Your task to perform on an android device: What's on my calendar tomorrow? Image 0: 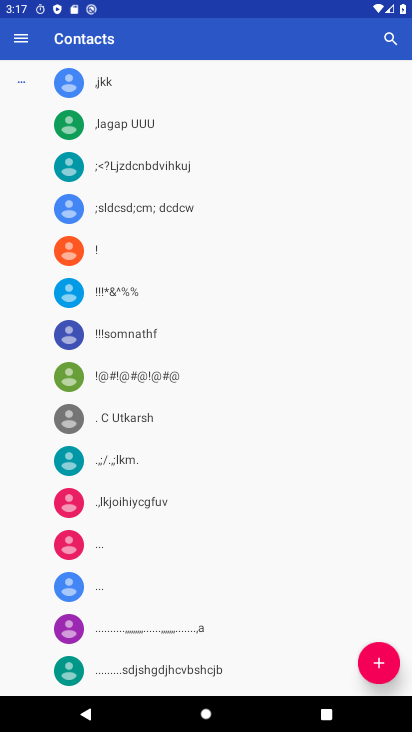
Step 0: press home button
Your task to perform on an android device: What's on my calendar tomorrow? Image 1: 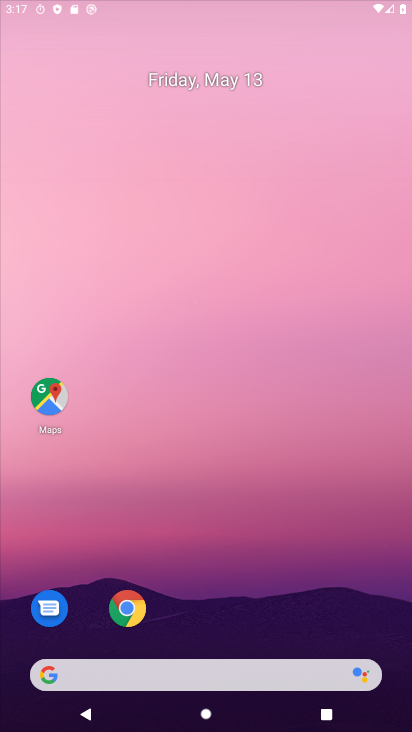
Step 1: drag from (282, 582) to (300, 70)
Your task to perform on an android device: What's on my calendar tomorrow? Image 2: 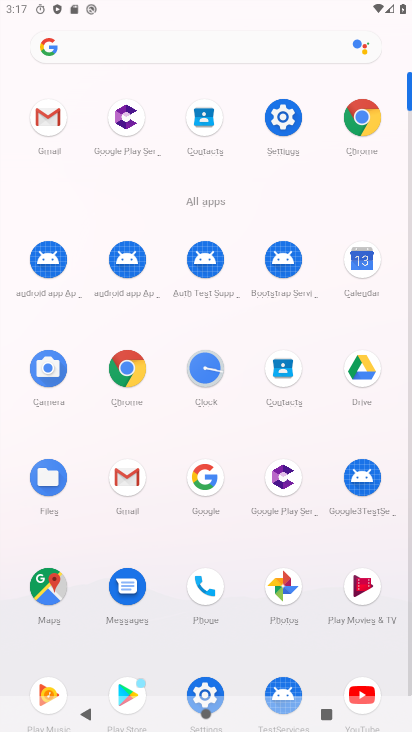
Step 2: click (355, 259)
Your task to perform on an android device: What's on my calendar tomorrow? Image 3: 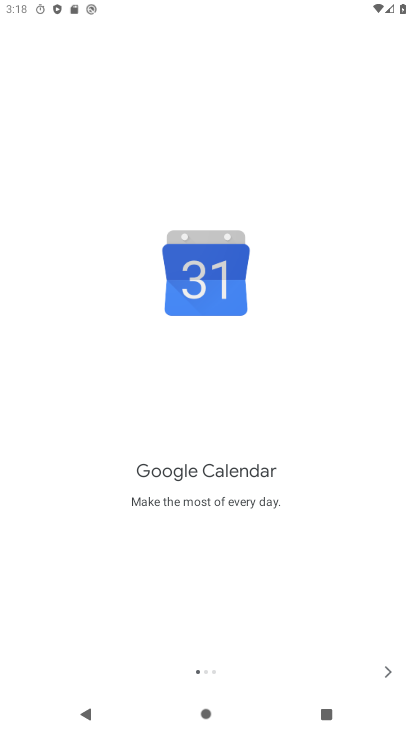
Step 3: click (372, 656)
Your task to perform on an android device: What's on my calendar tomorrow? Image 4: 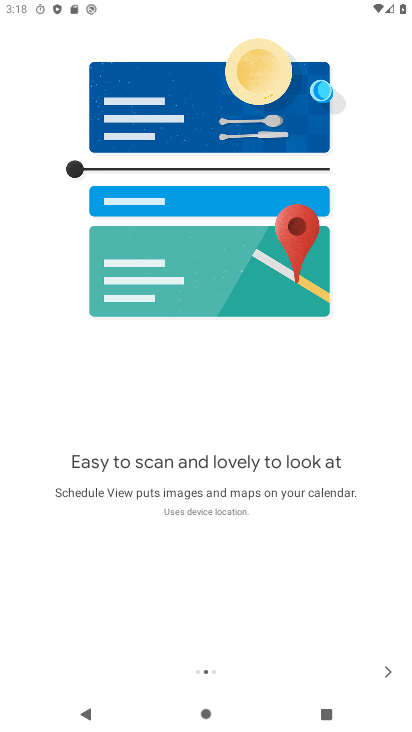
Step 4: click (372, 656)
Your task to perform on an android device: What's on my calendar tomorrow? Image 5: 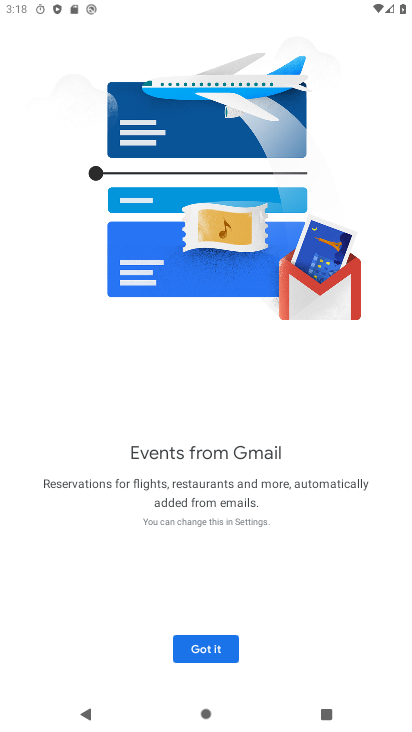
Step 5: click (372, 656)
Your task to perform on an android device: What's on my calendar tomorrow? Image 6: 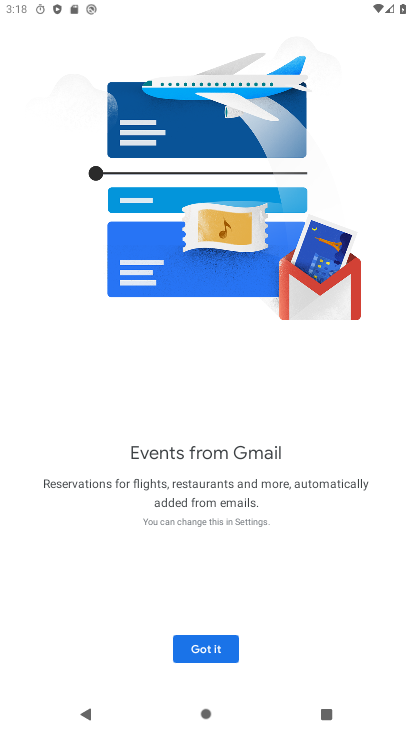
Step 6: click (230, 642)
Your task to perform on an android device: What's on my calendar tomorrow? Image 7: 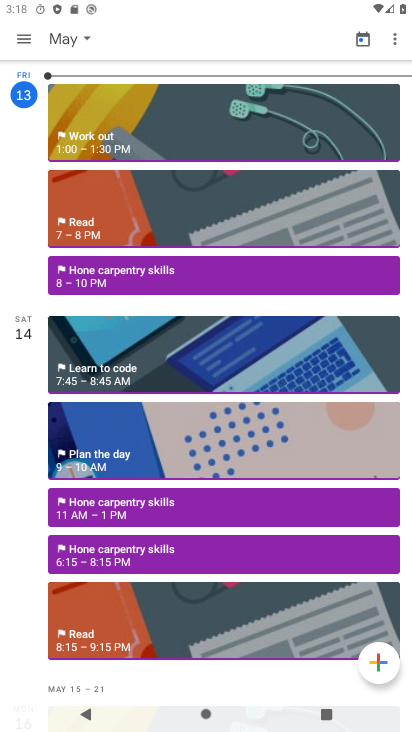
Step 7: click (84, 28)
Your task to perform on an android device: What's on my calendar tomorrow? Image 8: 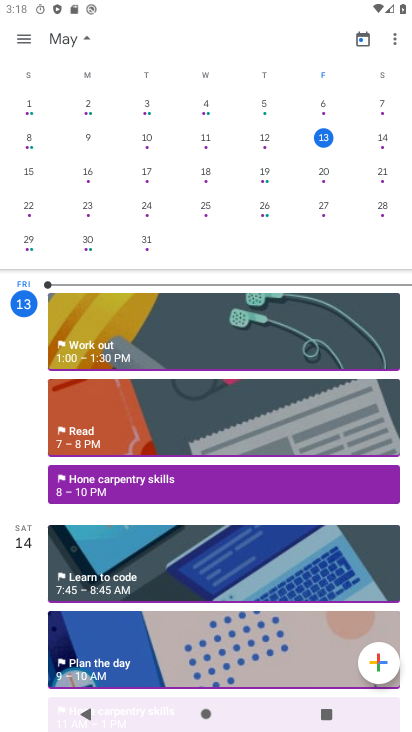
Step 8: click (380, 140)
Your task to perform on an android device: What's on my calendar tomorrow? Image 9: 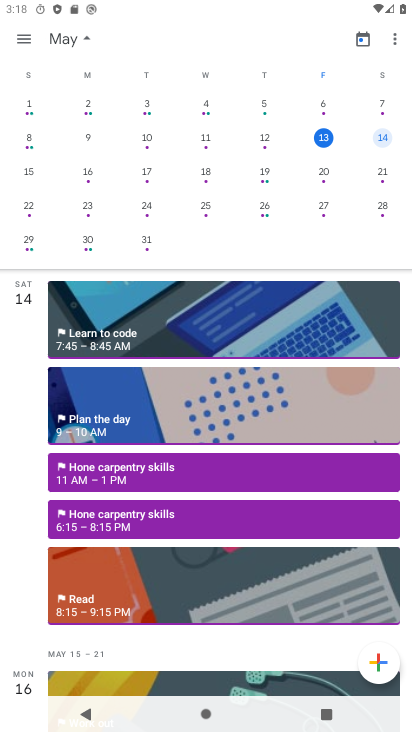
Step 9: click (65, 46)
Your task to perform on an android device: What's on my calendar tomorrow? Image 10: 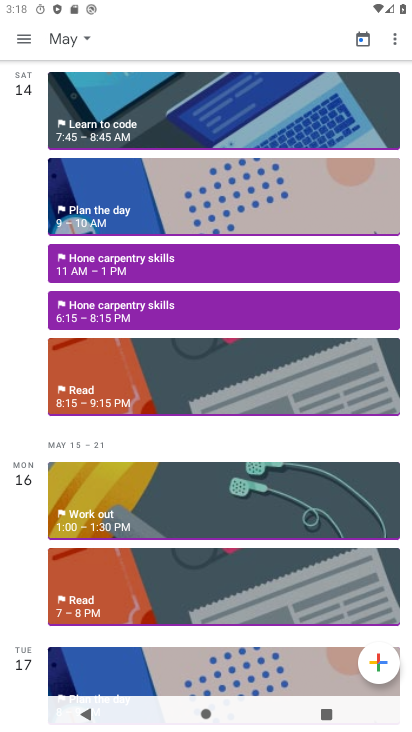
Step 10: task complete